Your task to perform on an android device: Open calendar and show me the third week of next month Image 0: 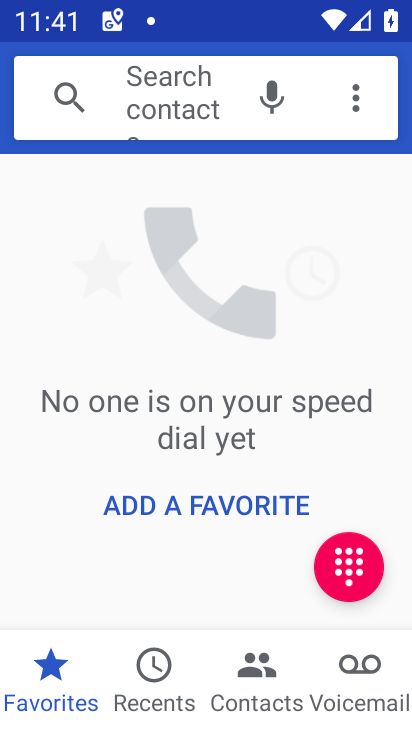
Step 0: press home button
Your task to perform on an android device: Open calendar and show me the third week of next month Image 1: 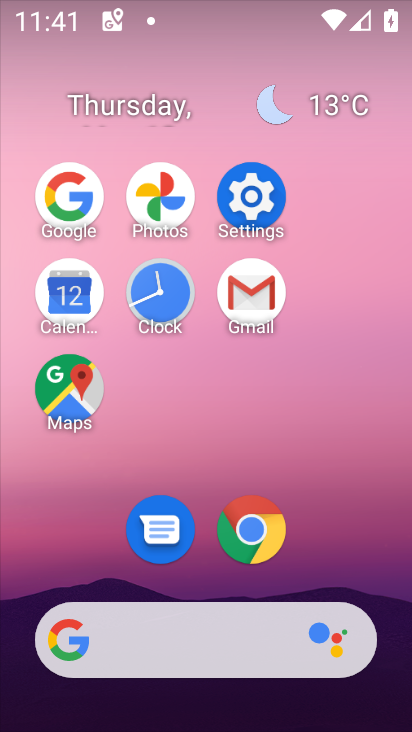
Step 1: click (58, 281)
Your task to perform on an android device: Open calendar and show me the third week of next month Image 2: 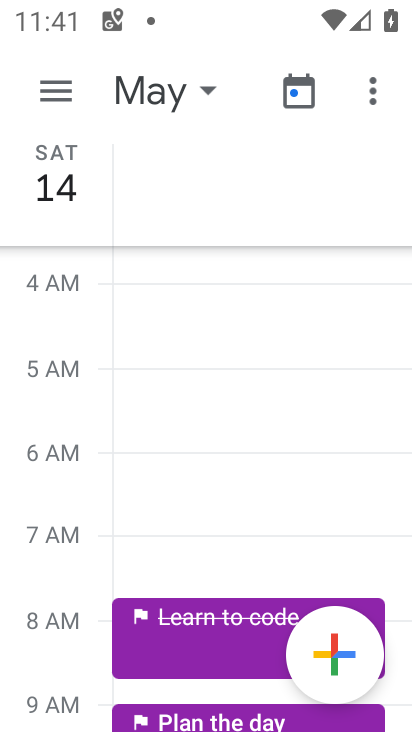
Step 2: click (176, 117)
Your task to perform on an android device: Open calendar and show me the third week of next month Image 3: 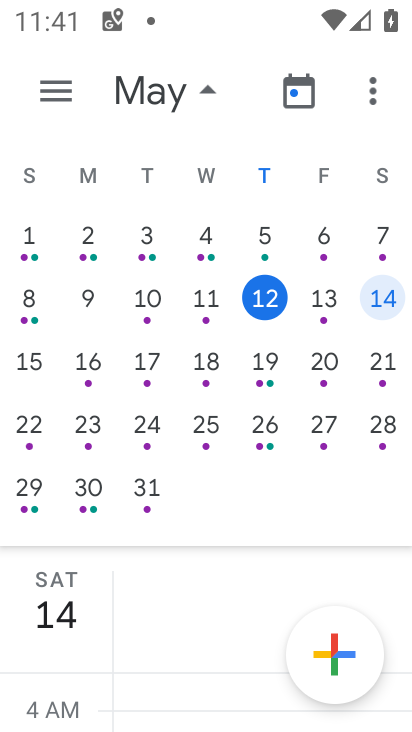
Step 3: drag from (387, 345) to (71, 290)
Your task to perform on an android device: Open calendar and show me the third week of next month Image 4: 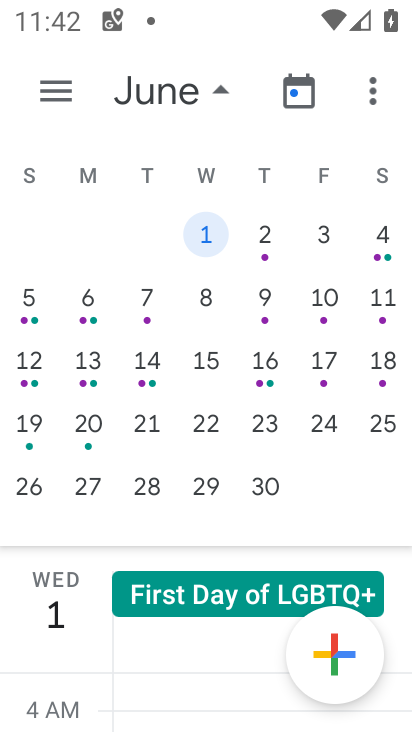
Step 4: click (53, 82)
Your task to perform on an android device: Open calendar and show me the third week of next month Image 5: 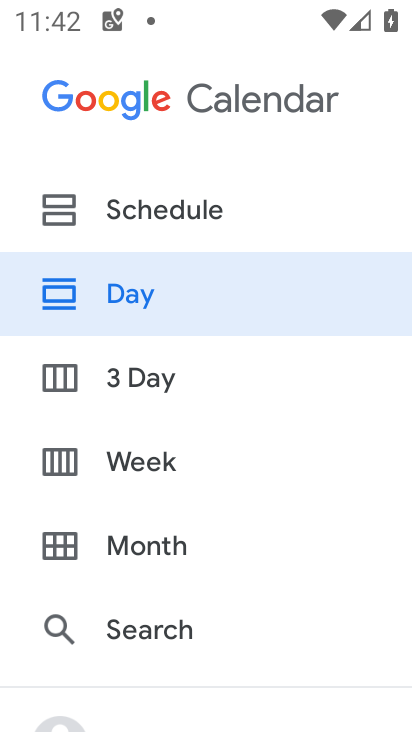
Step 5: click (166, 472)
Your task to perform on an android device: Open calendar and show me the third week of next month Image 6: 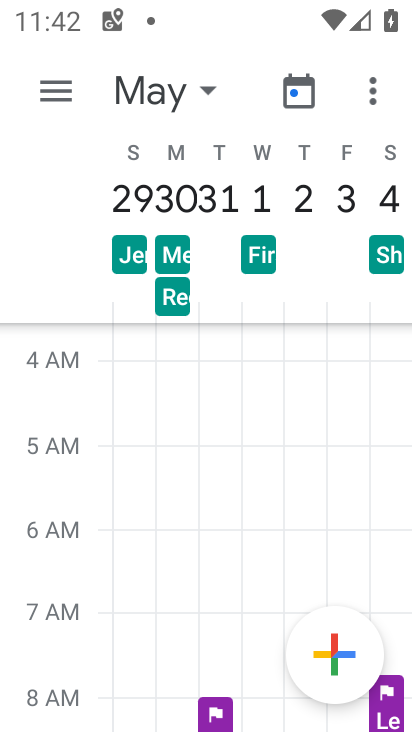
Step 6: click (190, 89)
Your task to perform on an android device: Open calendar and show me the third week of next month Image 7: 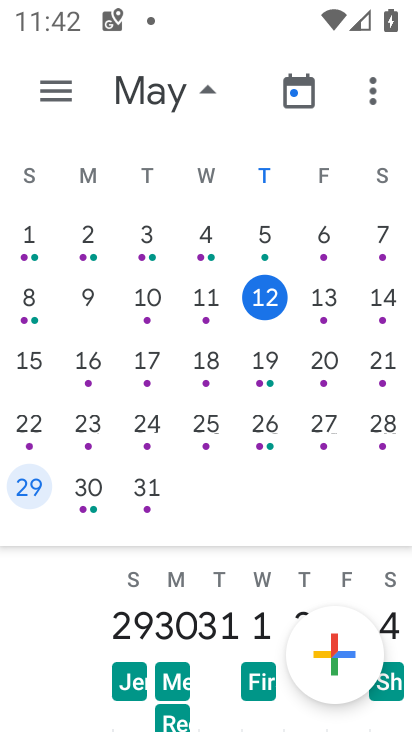
Step 7: drag from (383, 325) to (0, 135)
Your task to perform on an android device: Open calendar and show me the third week of next month Image 8: 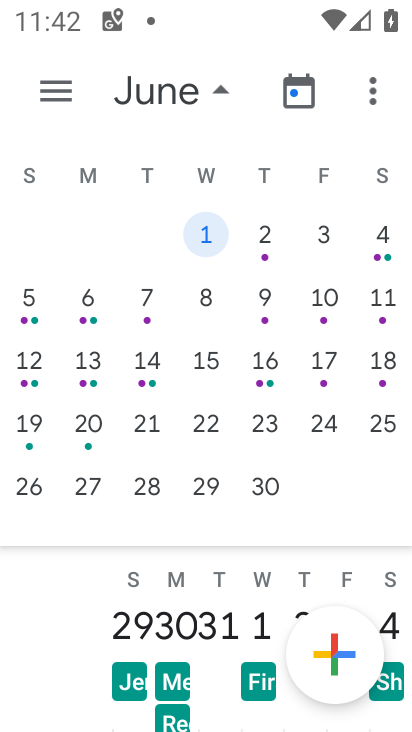
Step 8: click (42, 73)
Your task to perform on an android device: Open calendar and show me the third week of next month Image 9: 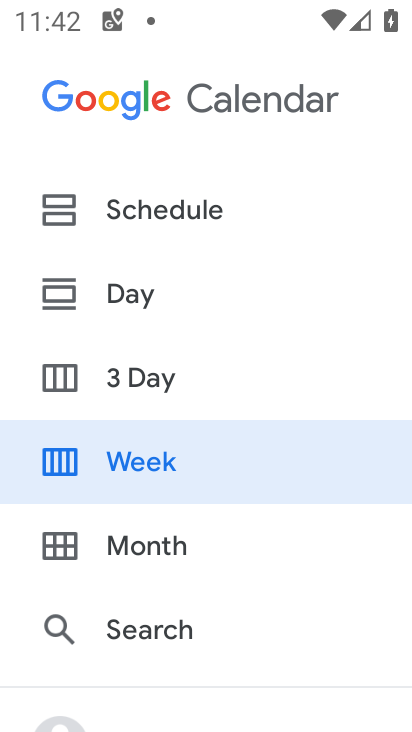
Step 9: click (151, 462)
Your task to perform on an android device: Open calendar and show me the third week of next month Image 10: 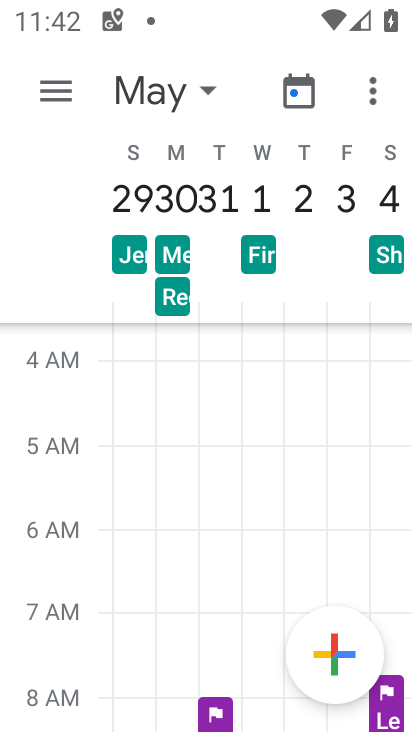
Step 10: task complete